Your task to perform on an android device: check google app version Image 0: 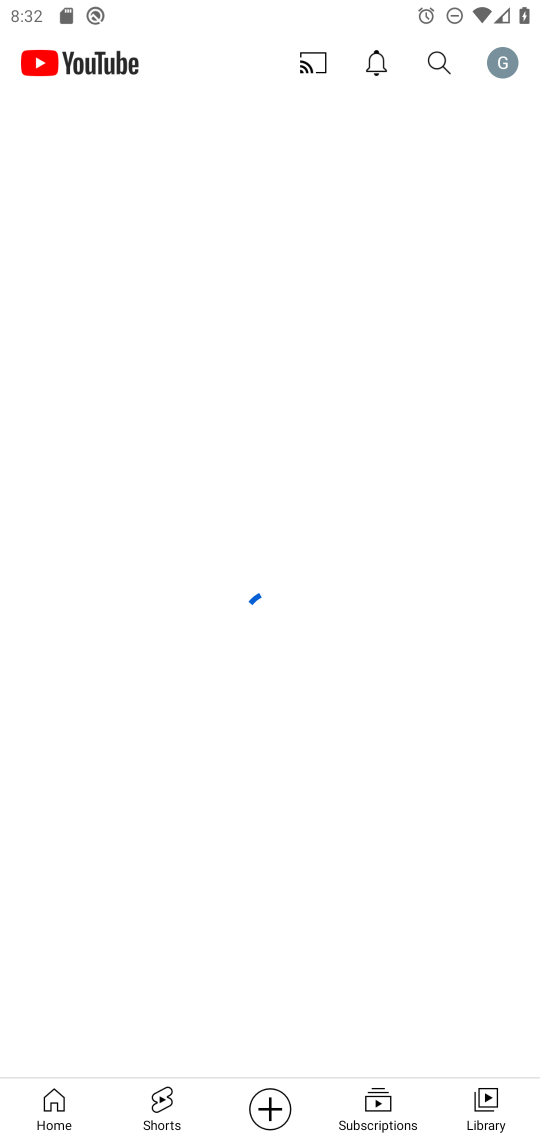
Step 0: press home button
Your task to perform on an android device: check google app version Image 1: 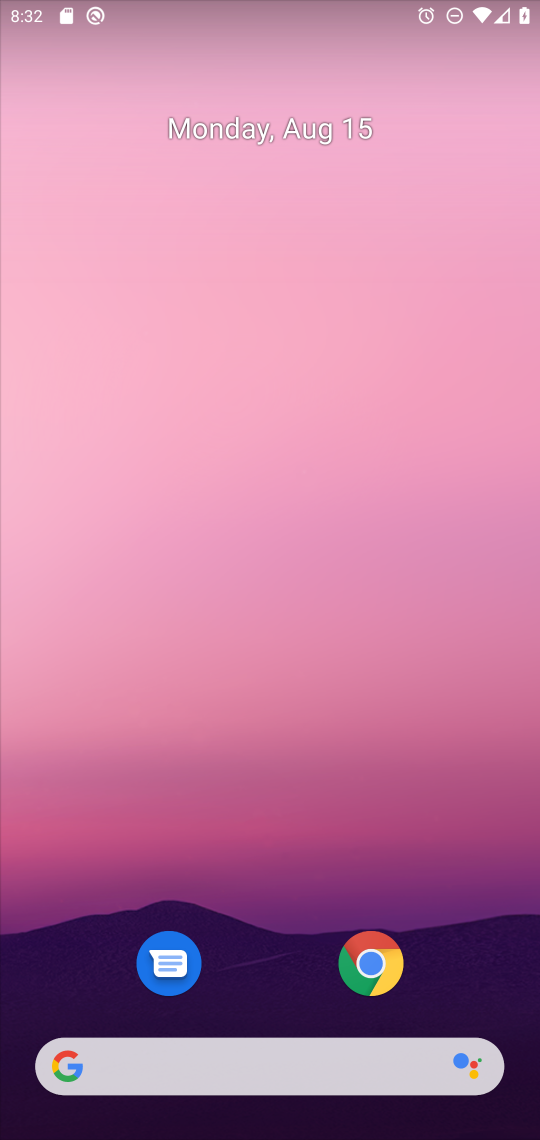
Step 1: click (192, 1059)
Your task to perform on an android device: check google app version Image 2: 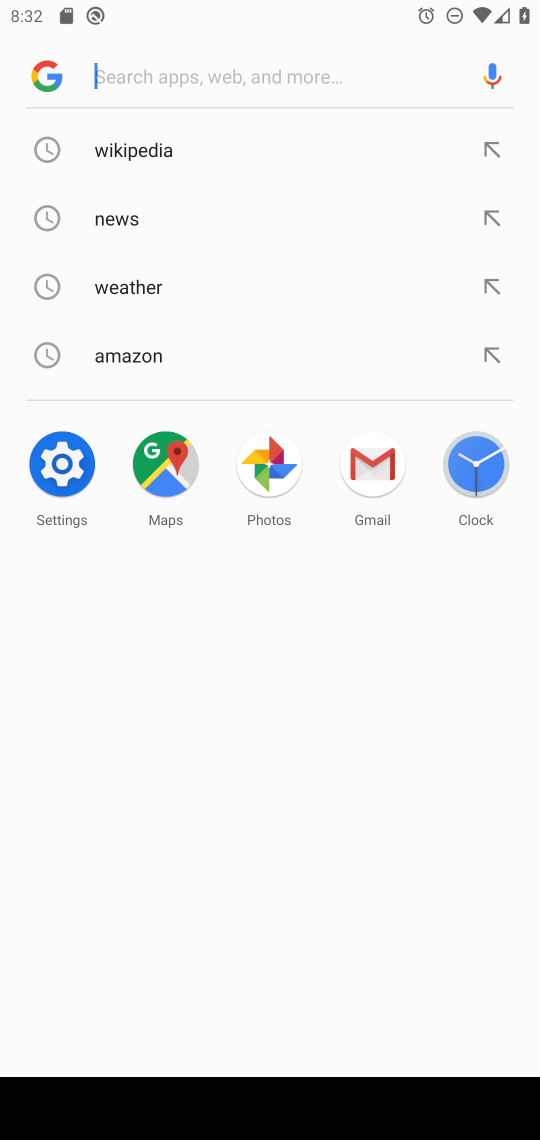
Step 2: click (53, 66)
Your task to perform on an android device: check google app version Image 3: 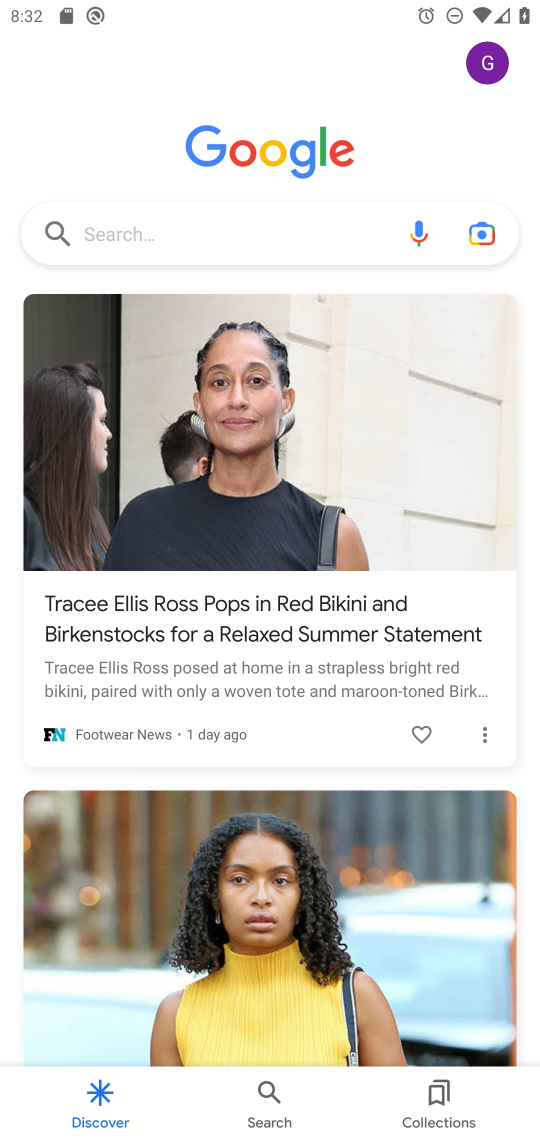
Step 3: click (506, 61)
Your task to perform on an android device: check google app version Image 4: 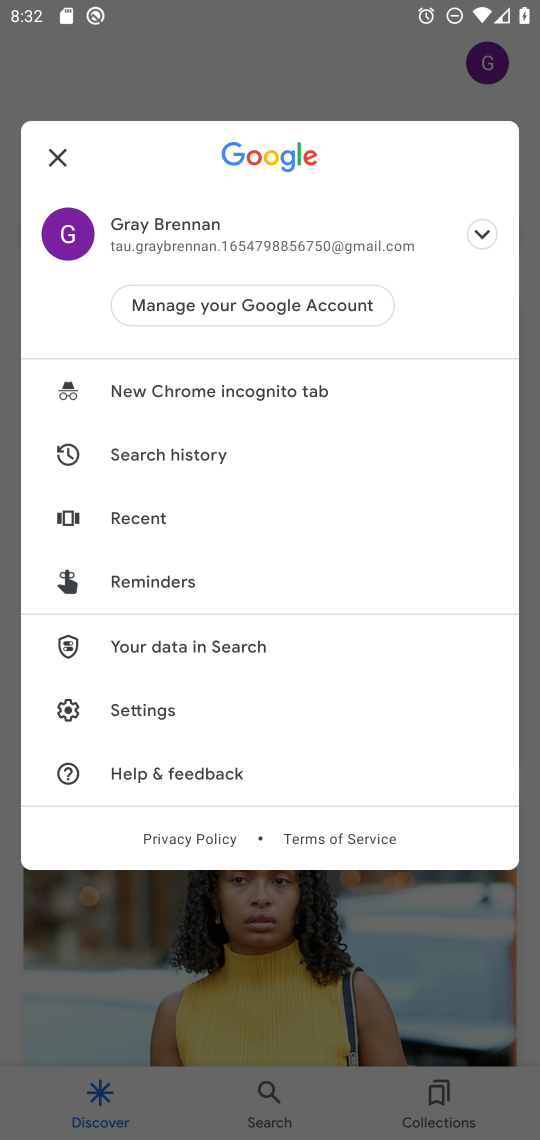
Step 4: click (178, 699)
Your task to perform on an android device: check google app version Image 5: 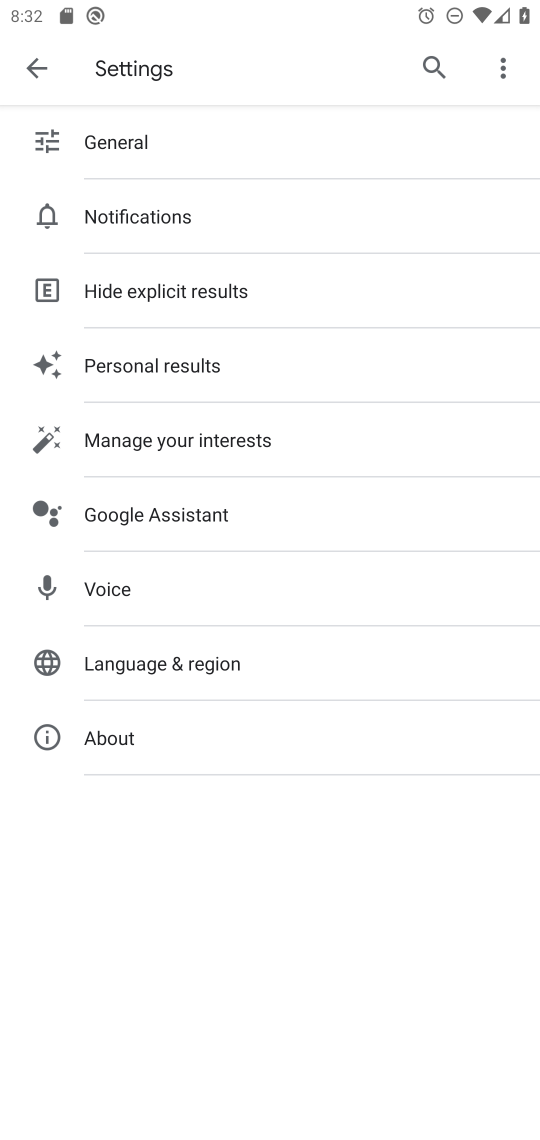
Step 5: click (185, 719)
Your task to perform on an android device: check google app version Image 6: 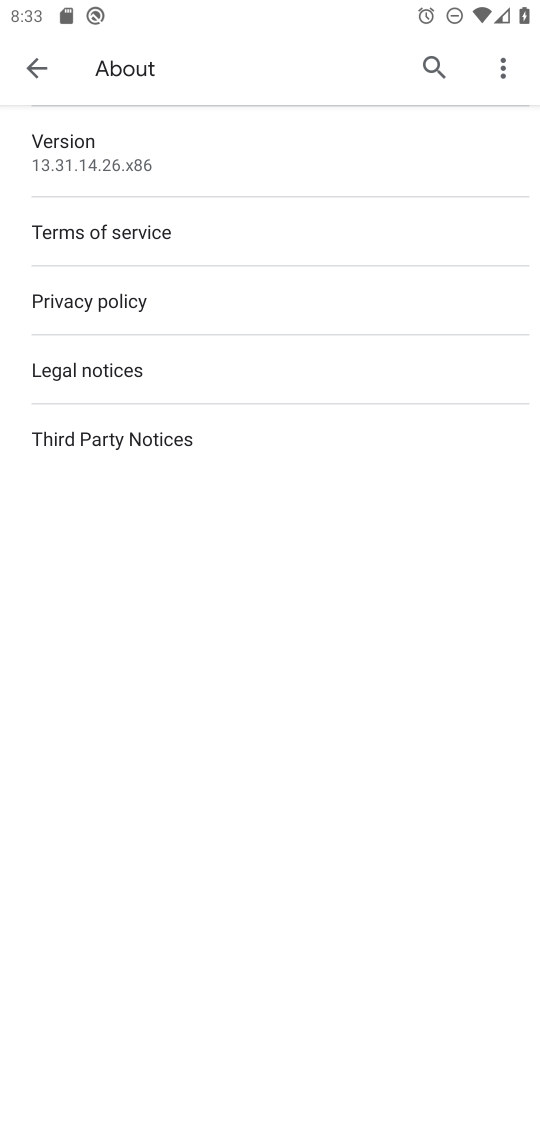
Step 6: click (221, 154)
Your task to perform on an android device: check google app version Image 7: 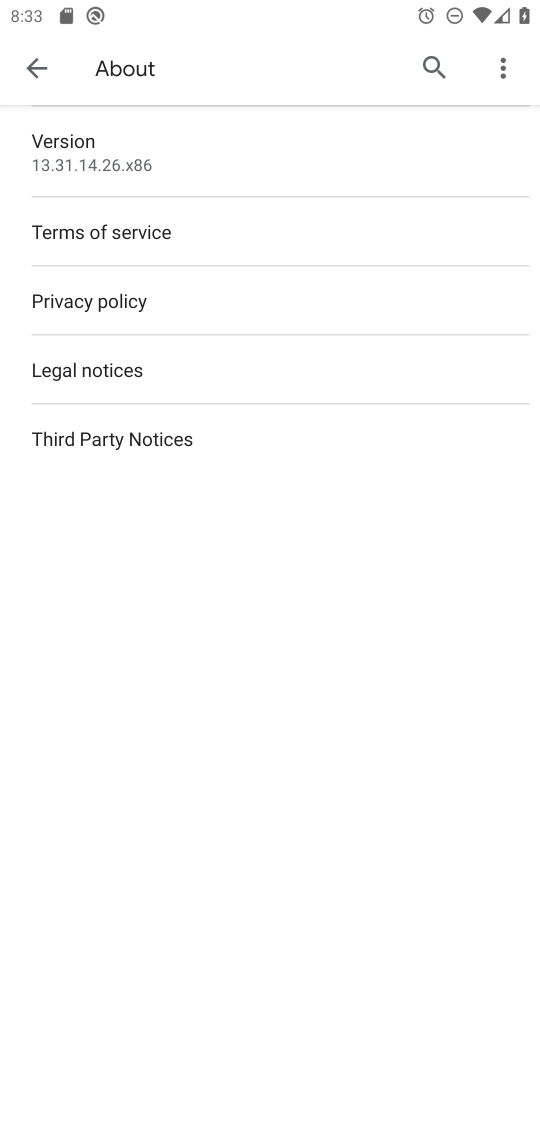
Step 7: task complete